Your task to perform on an android device: Open the web browser Image 0: 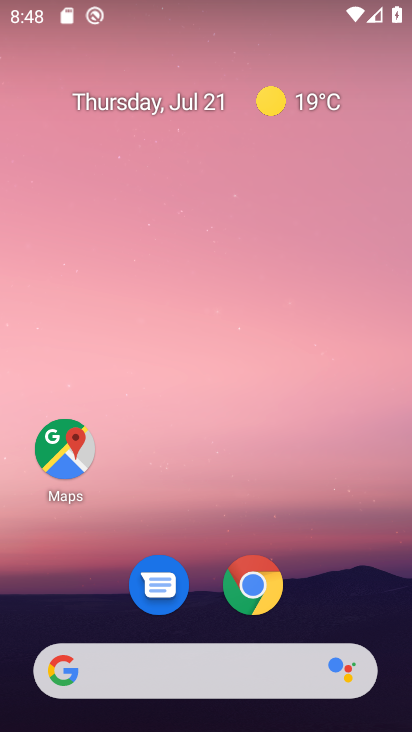
Step 0: click (249, 678)
Your task to perform on an android device: Open the web browser Image 1: 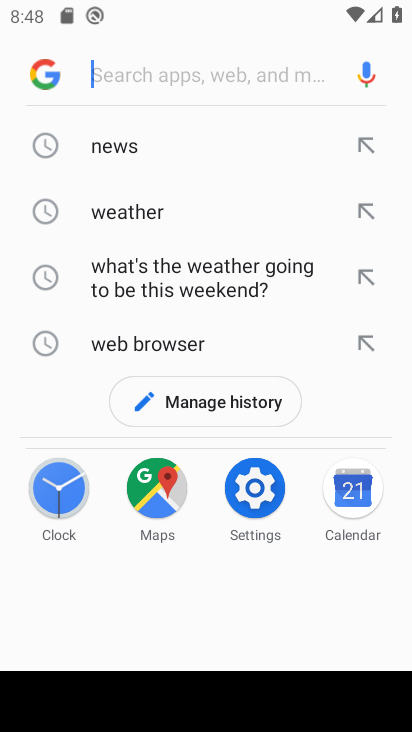
Step 1: task complete